Your task to perform on an android device: Go to CNN.com Image 0: 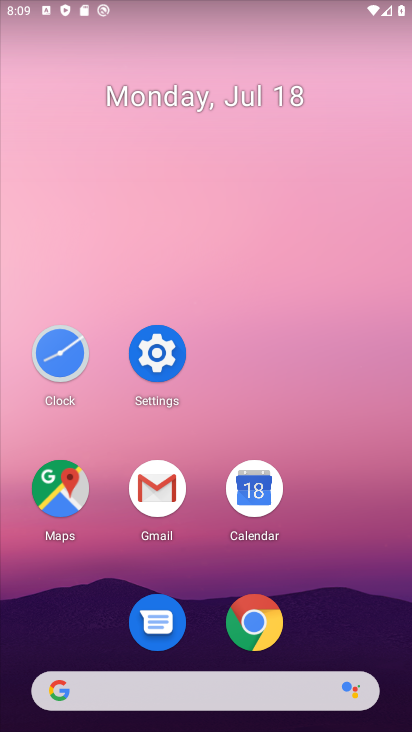
Step 0: click (241, 625)
Your task to perform on an android device: Go to CNN.com Image 1: 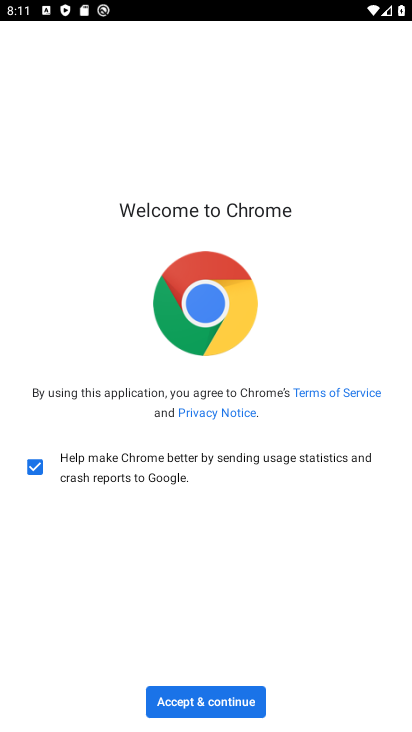
Step 1: click (192, 706)
Your task to perform on an android device: Go to CNN.com Image 2: 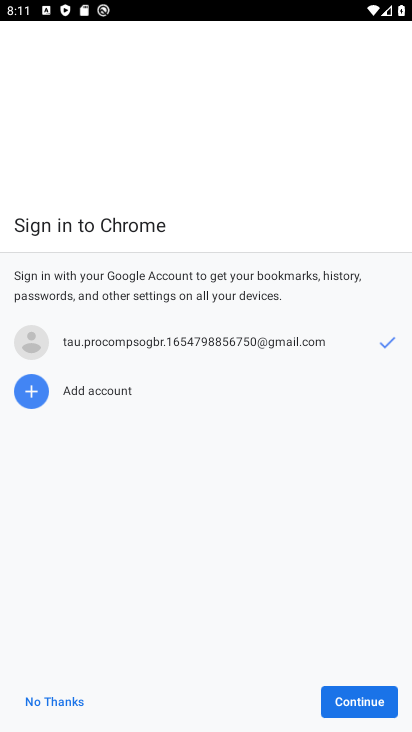
Step 2: click (334, 688)
Your task to perform on an android device: Go to CNN.com Image 3: 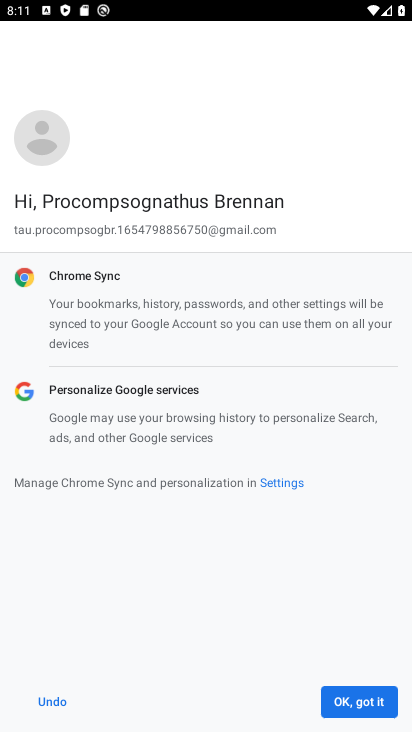
Step 3: click (345, 697)
Your task to perform on an android device: Go to CNN.com Image 4: 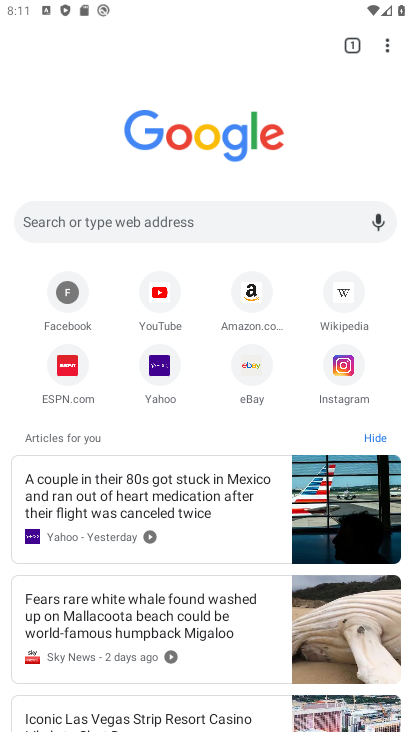
Step 4: click (241, 223)
Your task to perform on an android device: Go to CNN.com Image 5: 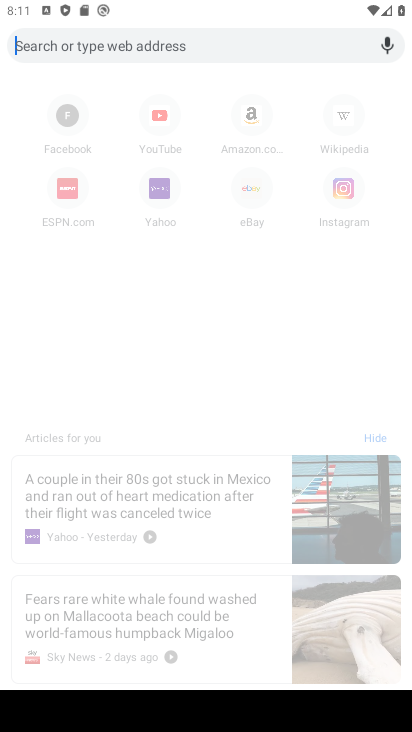
Step 5: type "CNN.com"
Your task to perform on an android device: Go to CNN.com Image 6: 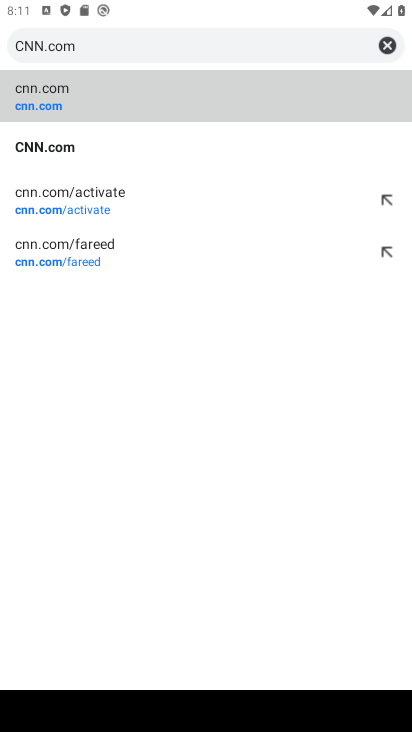
Step 6: click (51, 146)
Your task to perform on an android device: Go to CNN.com Image 7: 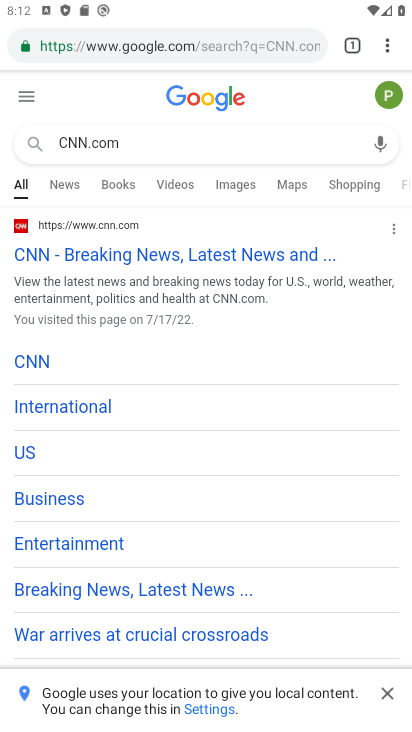
Step 7: task complete